Your task to perform on an android device: see tabs open on other devices in the chrome app Image 0: 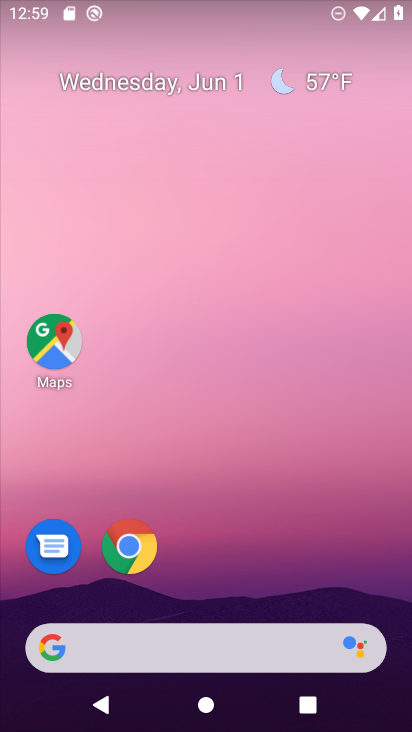
Step 0: click (126, 539)
Your task to perform on an android device: see tabs open on other devices in the chrome app Image 1: 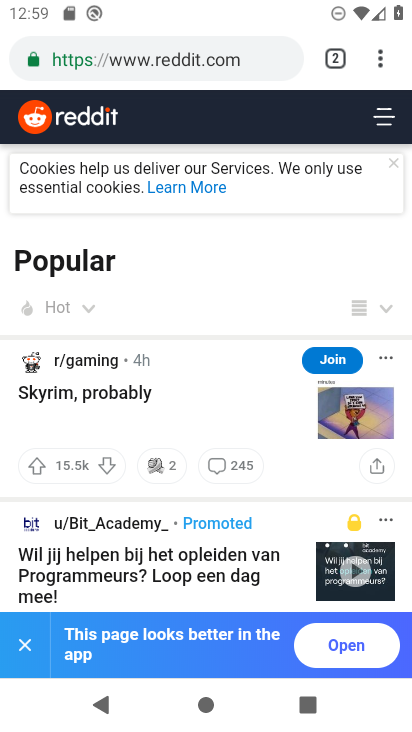
Step 1: click (340, 58)
Your task to perform on an android device: see tabs open on other devices in the chrome app Image 2: 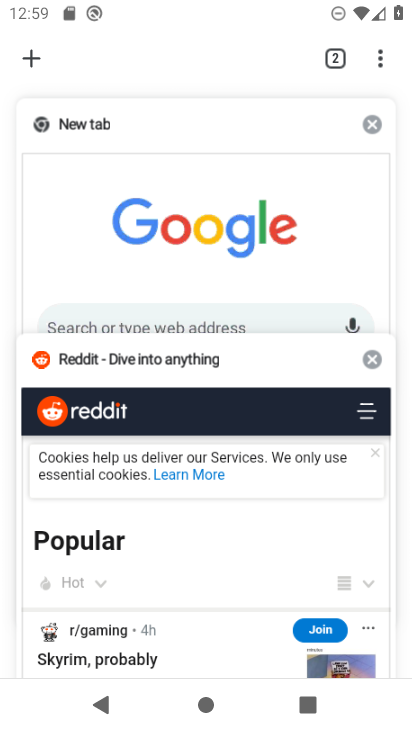
Step 2: task complete